Your task to perform on an android device: Check the weather Image 0: 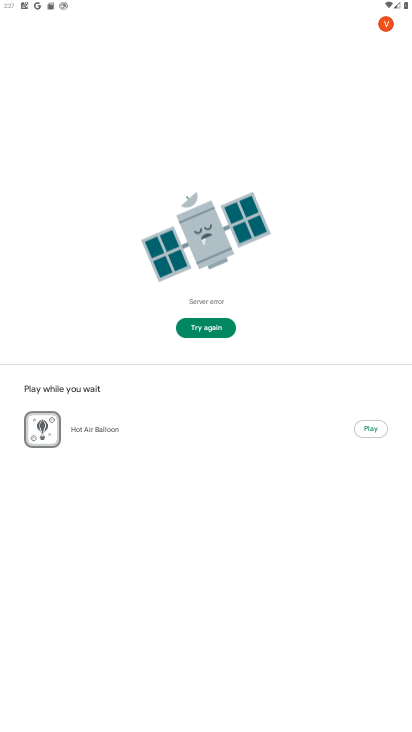
Step 0: press home button
Your task to perform on an android device: Check the weather Image 1: 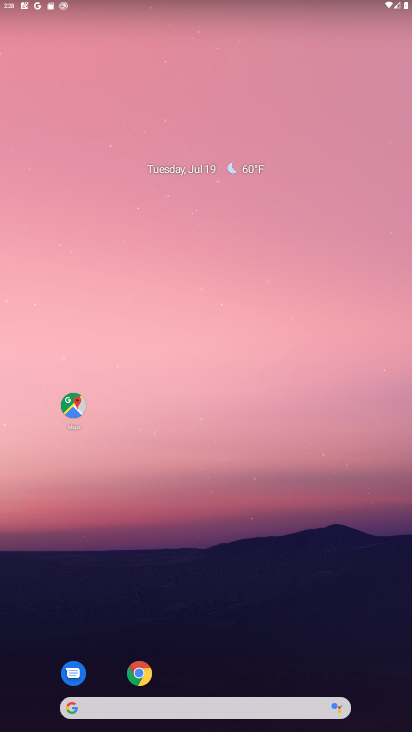
Step 1: click (178, 715)
Your task to perform on an android device: Check the weather Image 2: 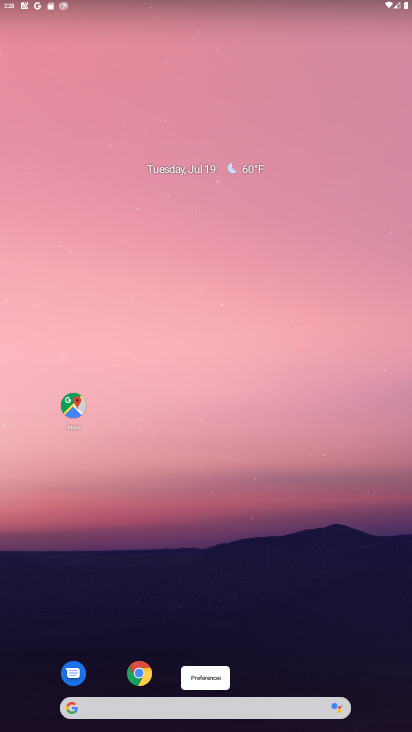
Step 2: click (132, 709)
Your task to perform on an android device: Check the weather Image 3: 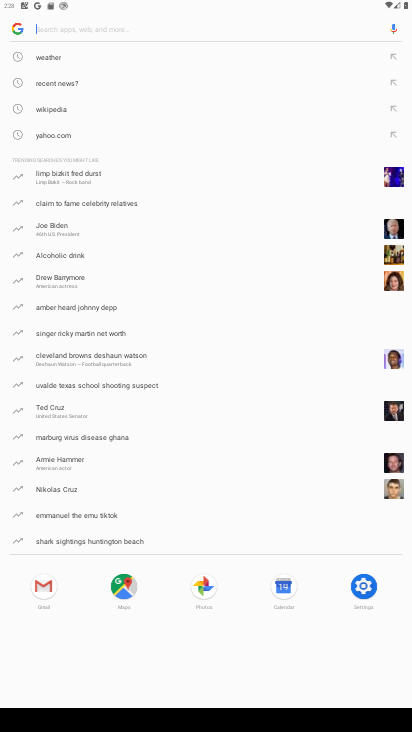
Step 3: click (108, 64)
Your task to perform on an android device: Check the weather Image 4: 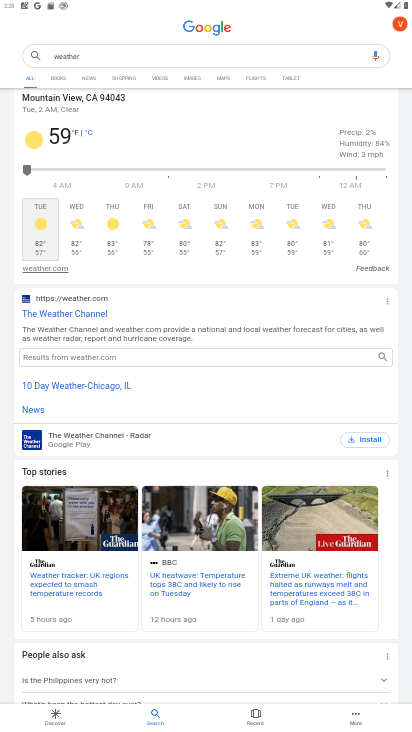
Step 4: task complete